Your task to perform on an android device: turn off sleep mode Image 0: 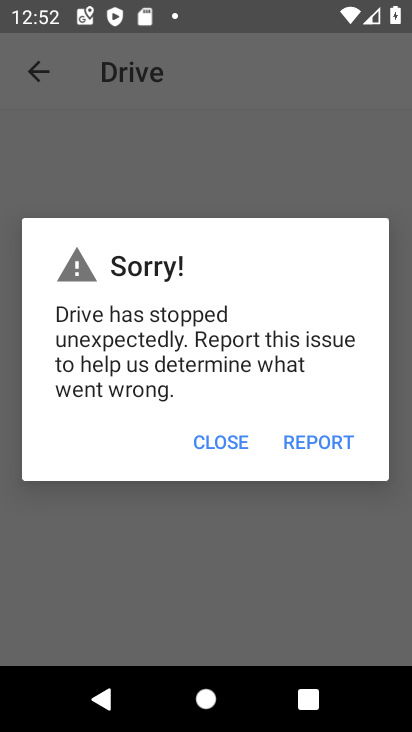
Step 0: press home button
Your task to perform on an android device: turn off sleep mode Image 1: 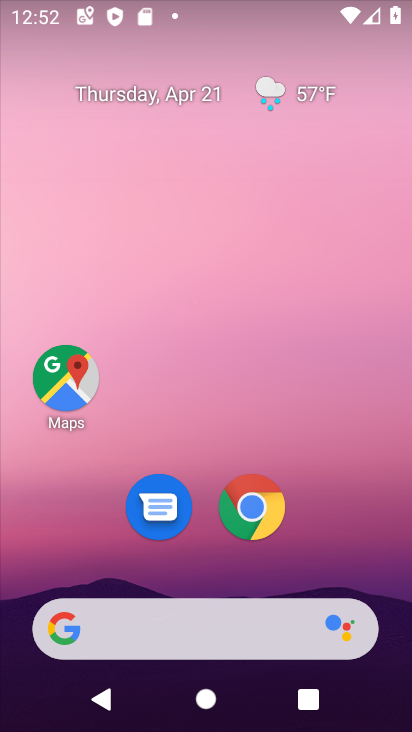
Step 1: drag from (313, 532) to (321, 31)
Your task to perform on an android device: turn off sleep mode Image 2: 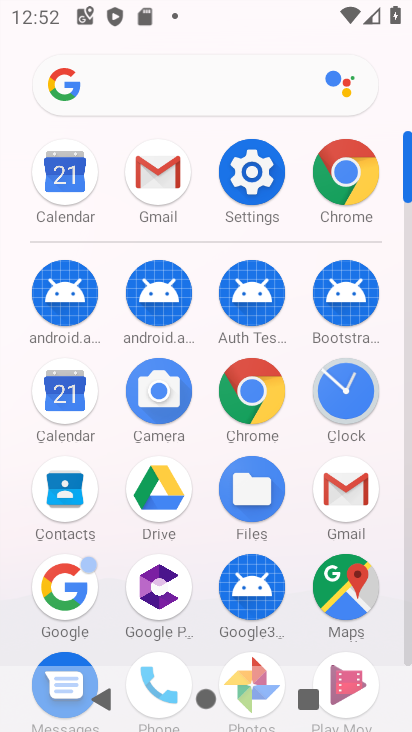
Step 2: click (253, 172)
Your task to perform on an android device: turn off sleep mode Image 3: 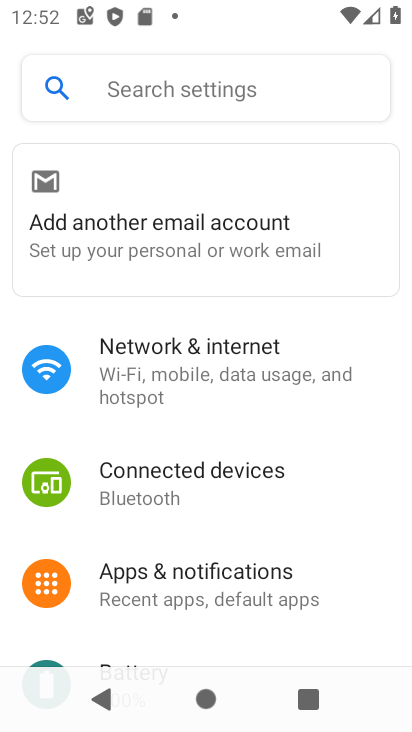
Step 3: drag from (246, 446) to (295, 368)
Your task to perform on an android device: turn off sleep mode Image 4: 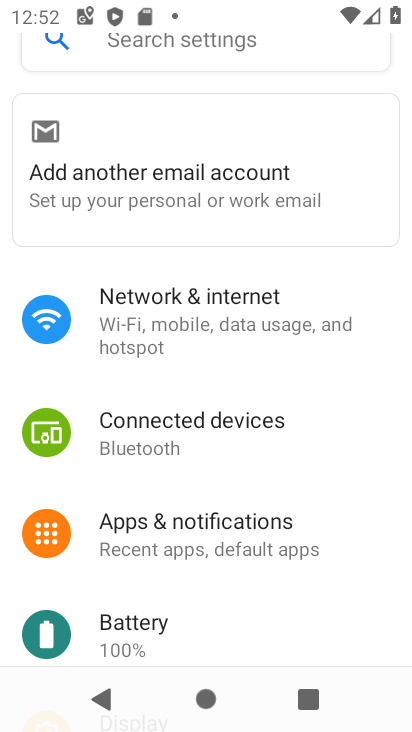
Step 4: drag from (242, 521) to (291, 422)
Your task to perform on an android device: turn off sleep mode Image 5: 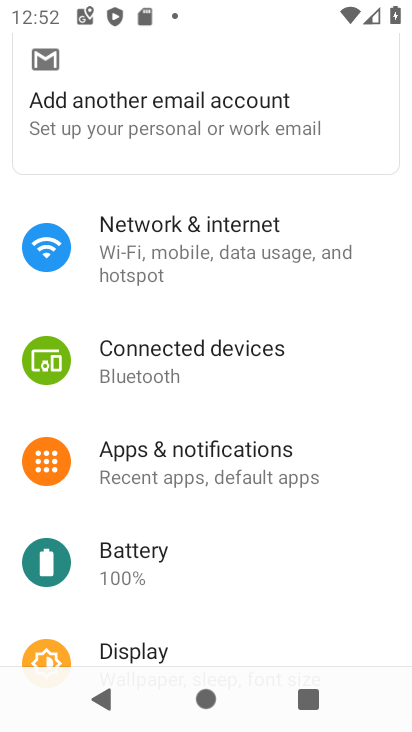
Step 5: drag from (212, 557) to (277, 444)
Your task to perform on an android device: turn off sleep mode Image 6: 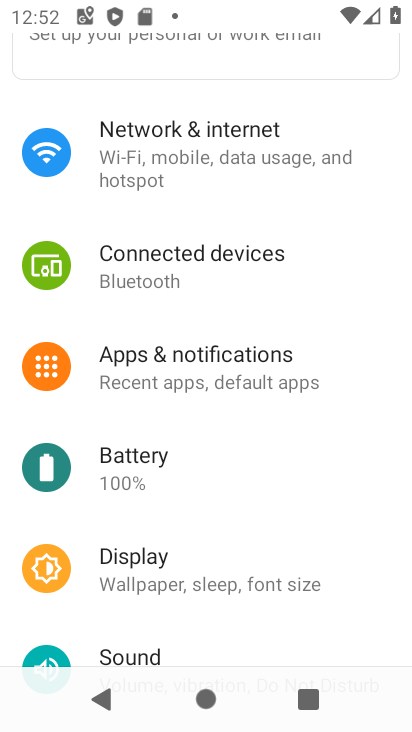
Step 6: click (251, 583)
Your task to perform on an android device: turn off sleep mode Image 7: 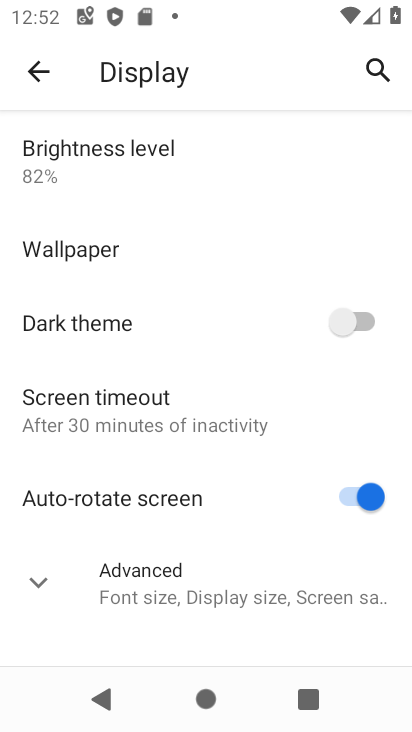
Step 7: click (213, 419)
Your task to perform on an android device: turn off sleep mode Image 8: 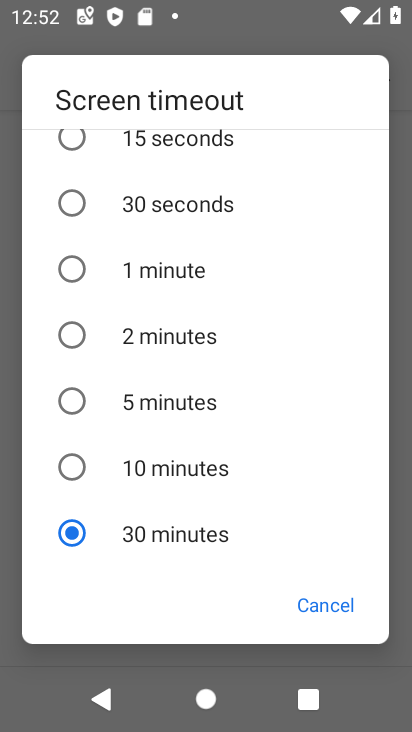
Step 8: click (327, 596)
Your task to perform on an android device: turn off sleep mode Image 9: 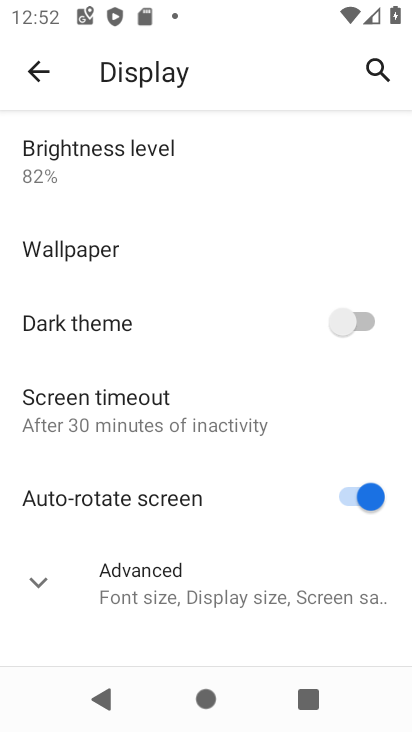
Step 9: click (270, 588)
Your task to perform on an android device: turn off sleep mode Image 10: 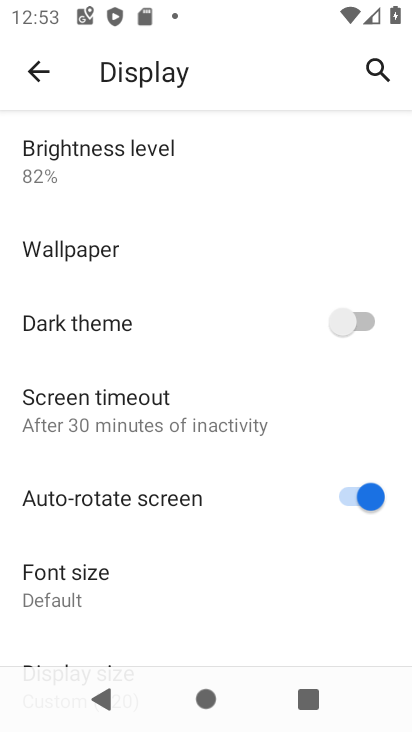
Step 10: task complete